Your task to perform on an android device: When is my next meeting? Image 0: 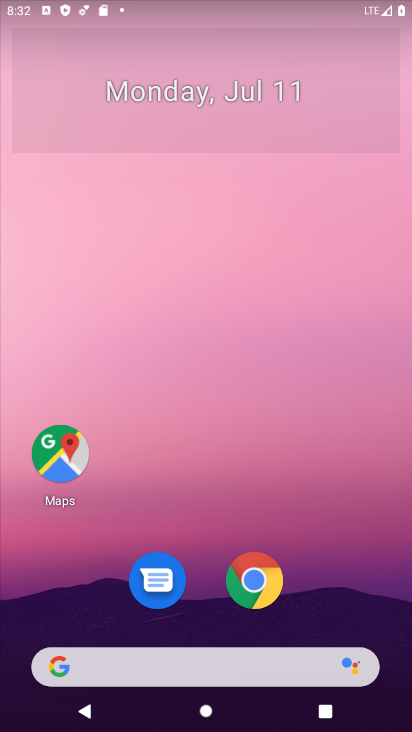
Step 0: drag from (244, 507) to (301, 7)
Your task to perform on an android device: When is my next meeting? Image 1: 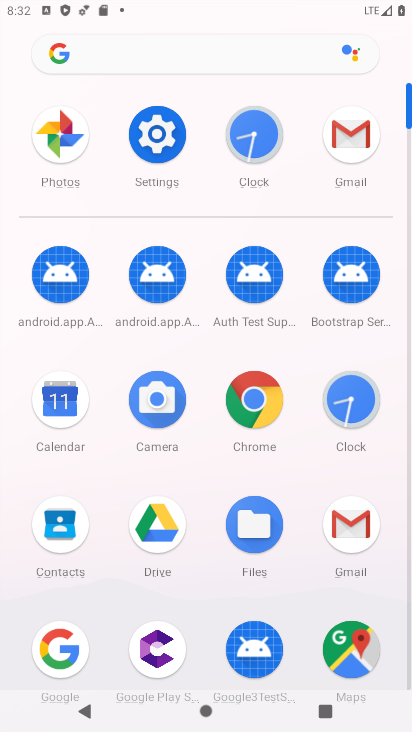
Step 1: click (66, 408)
Your task to perform on an android device: When is my next meeting? Image 2: 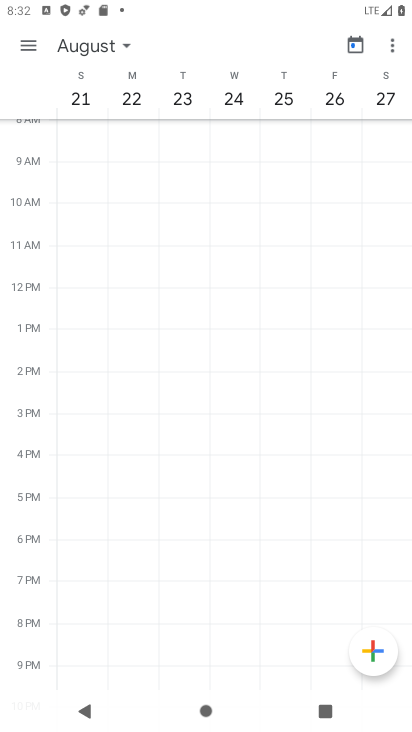
Step 2: click (32, 41)
Your task to perform on an android device: When is my next meeting? Image 3: 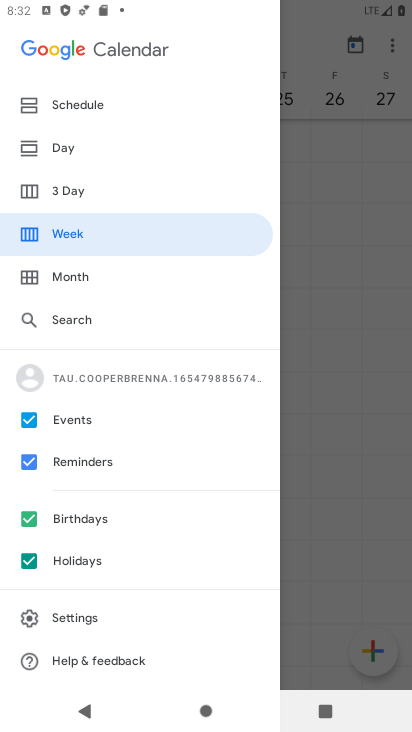
Step 3: click (73, 272)
Your task to perform on an android device: When is my next meeting? Image 4: 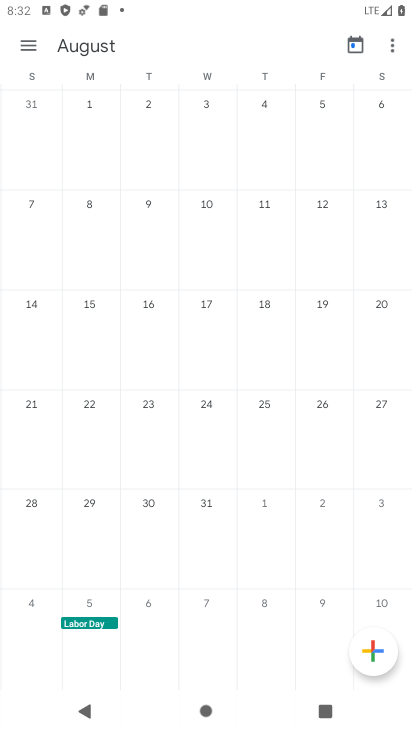
Step 4: drag from (84, 401) to (411, 363)
Your task to perform on an android device: When is my next meeting? Image 5: 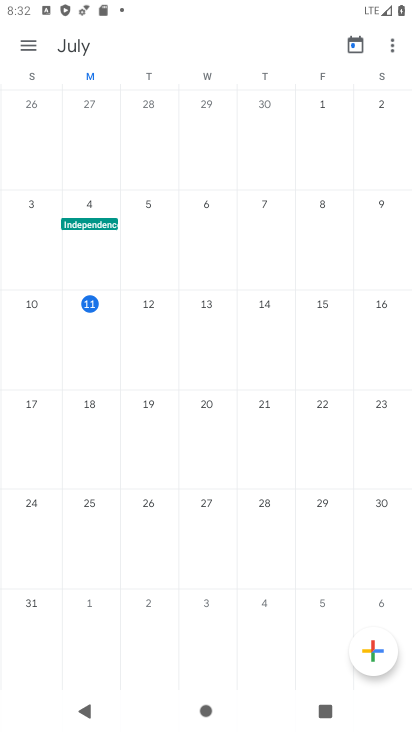
Step 5: click (90, 303)
Your task to perform on an android device: When is my next meeting? Image 6: 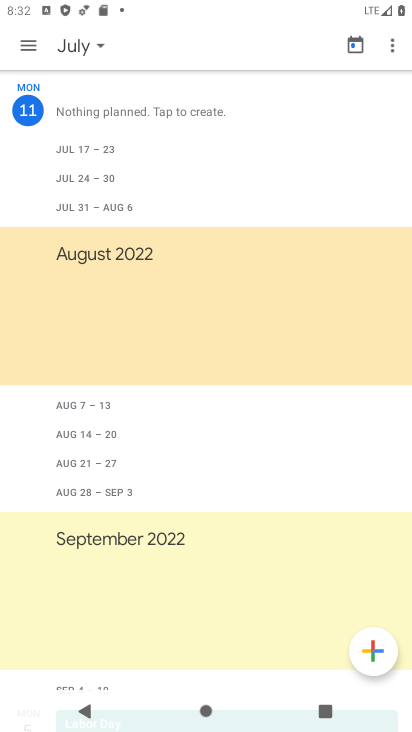
Step 6: task complete